Your task to perform on an android device: Clear the shopping cart on target.com. Search for "jbl flip 4" on target.com, select the first entry, add it to the cart, then select checkout. Image 0: 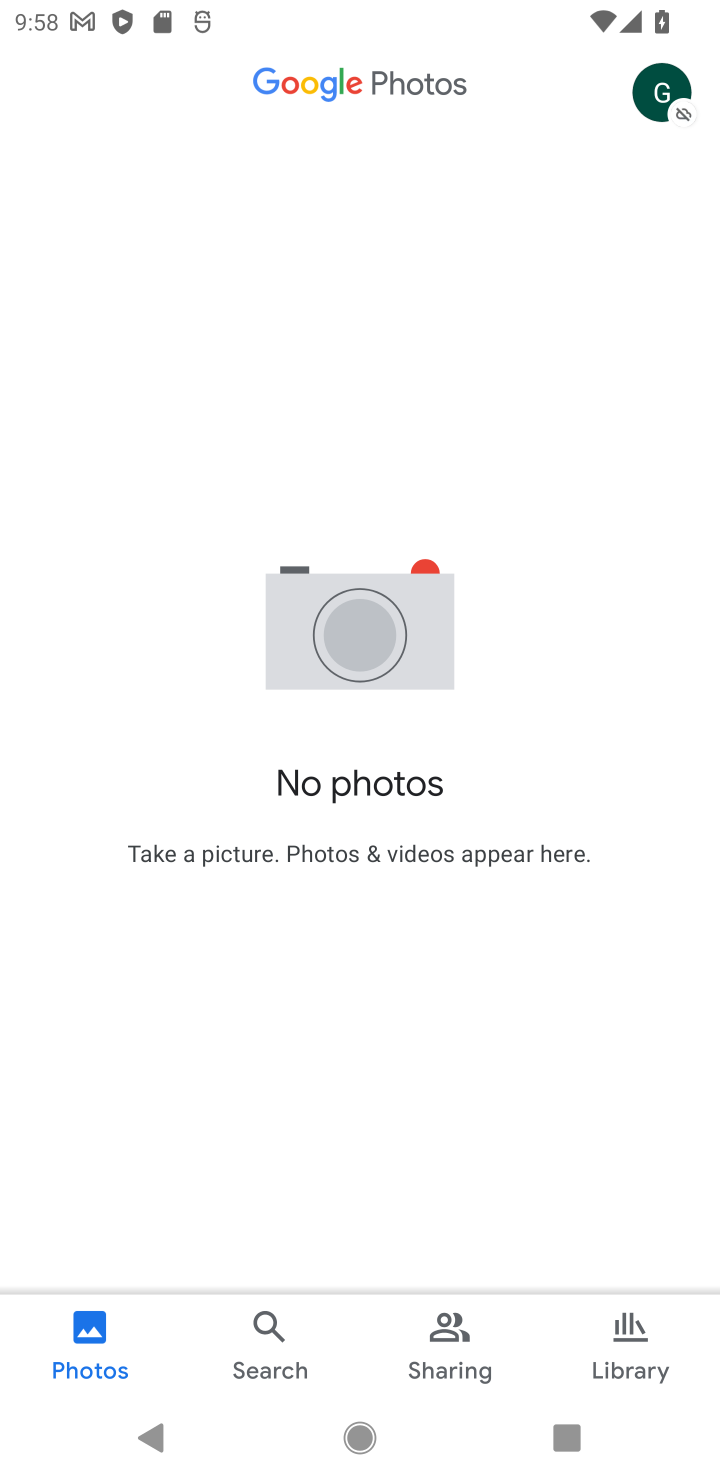
Step 0: press home button
Your task to perform on an android device: Clear the shopping cart on target.com. Search for "jbl flip 4" on target.com, select the first entry, add it to the cart, then select checkout. Image 1: 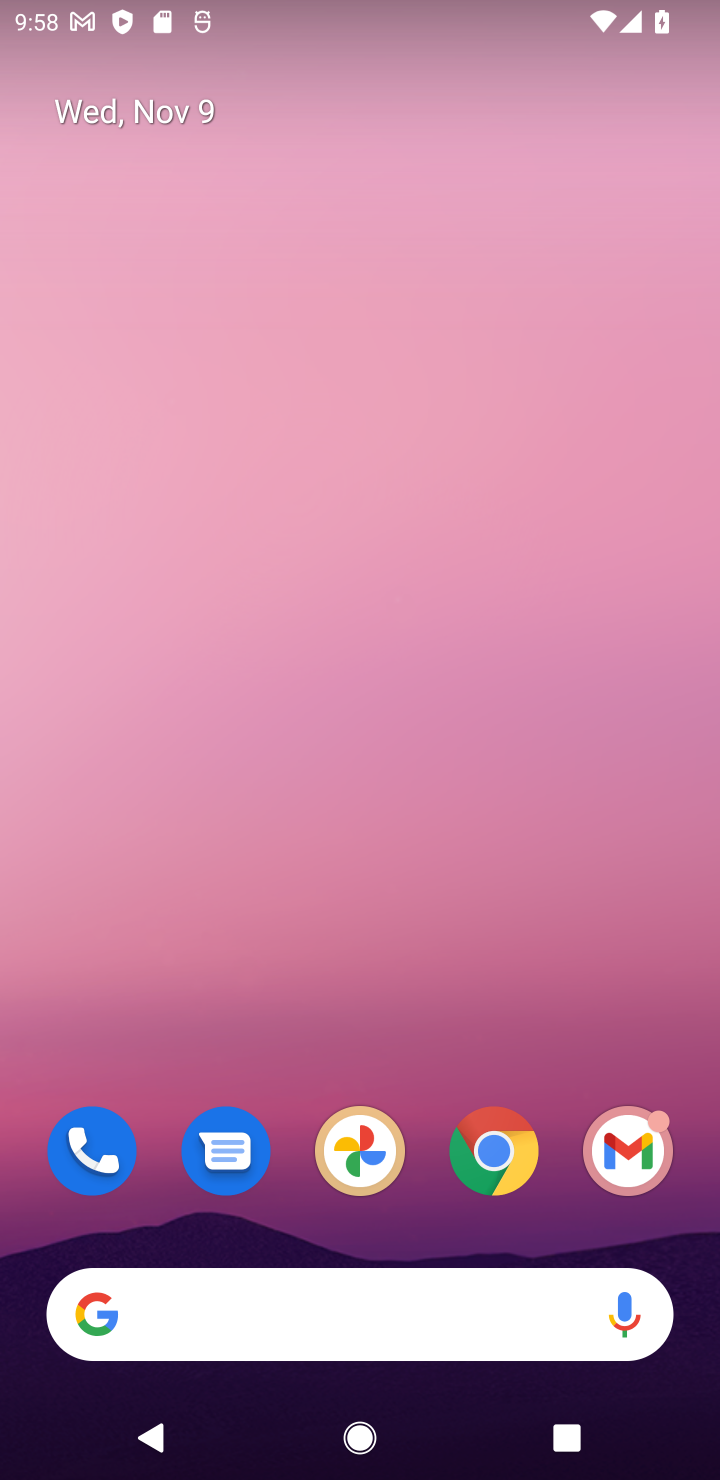
Step 1: click (484, 1161)
Your task to perform on an android device: Clear the shopping cart on target.com. Search for "jbl flip 4" on target.com, select the first entry, add it to the cart, then select checkout. Image 2: 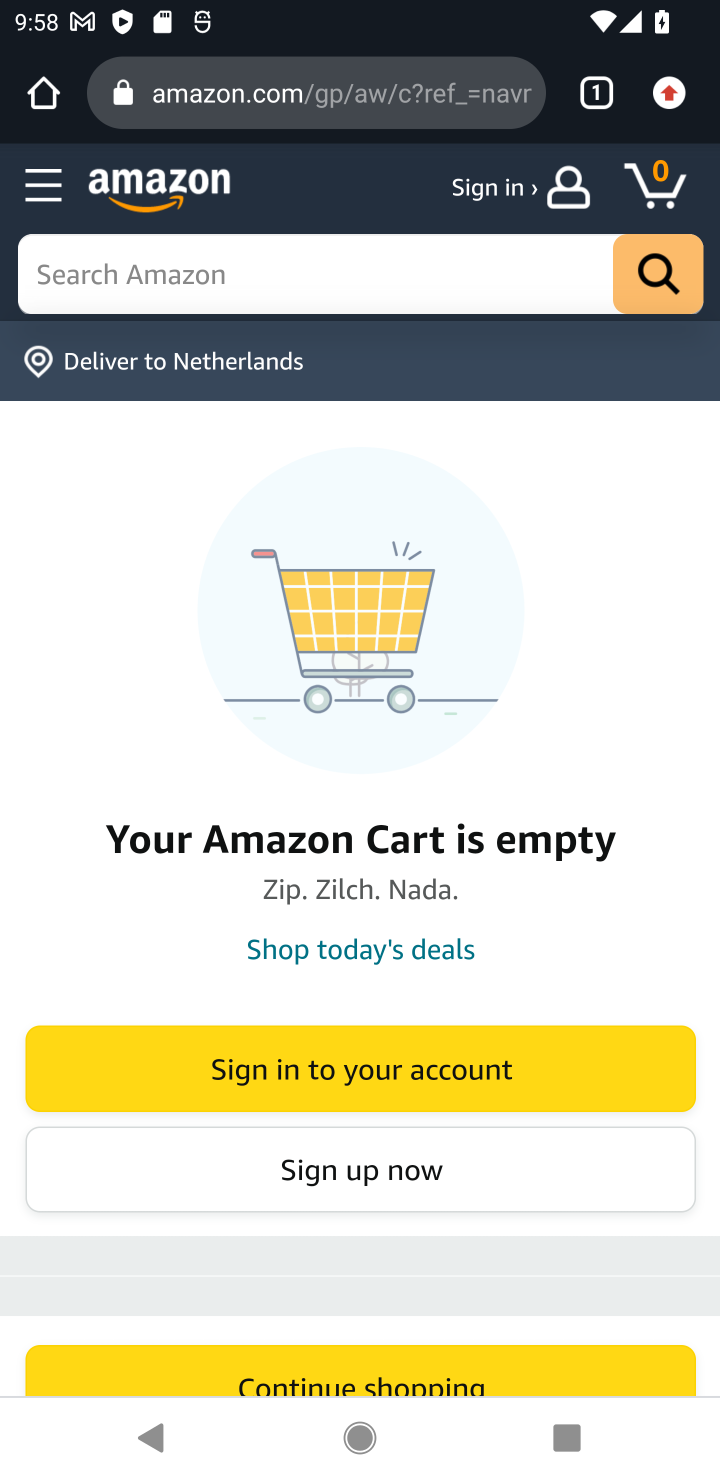
Step 2: click (370, 87)
Your task to perform on an android device: Clear the shopping cart on target.com. Search for "jbl flip 4" on target.com, select the first entry, add it to the cart, then select checkout. Image 3: 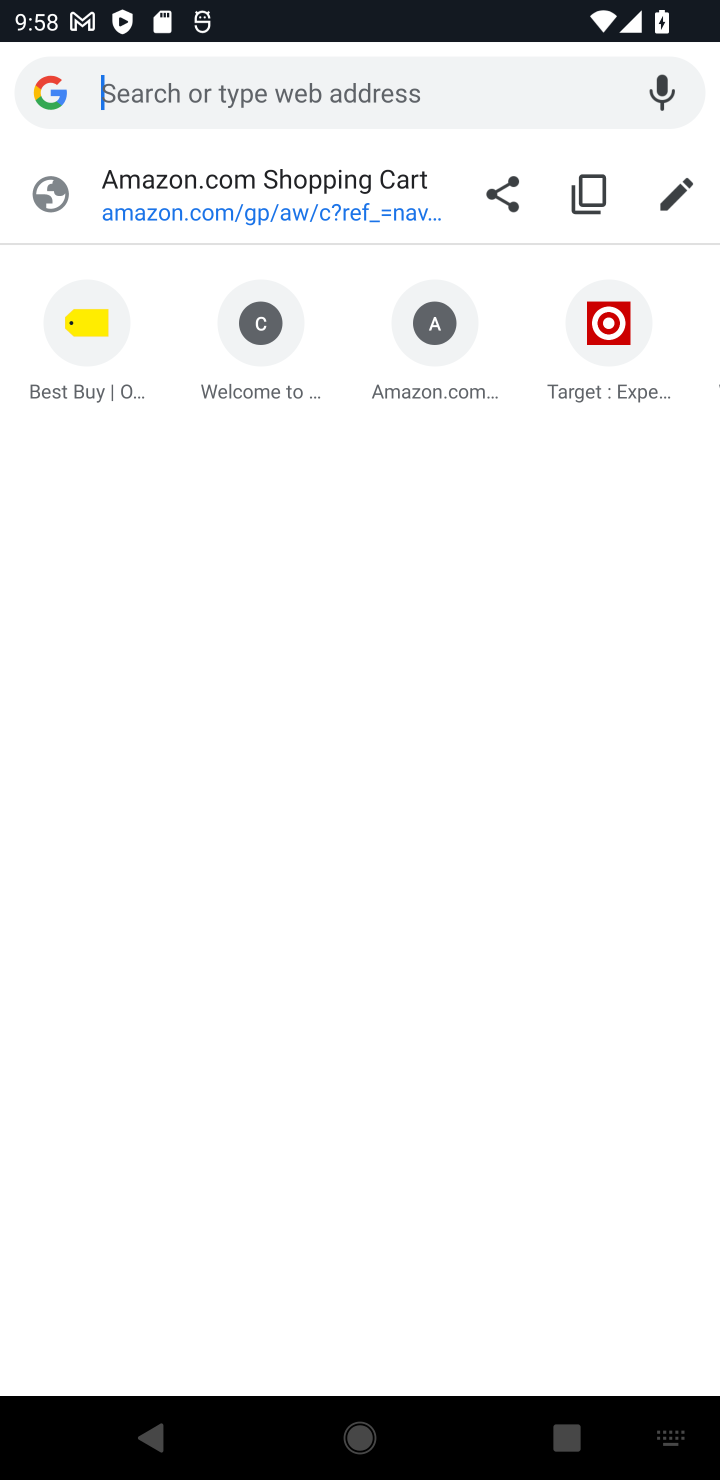
Step 3: click (620, 351)
Your task to perform on an android device: Clear the shopping cart on target.com. Search for "jbl flip 4" on target.com, select the first entry, add it to the cart, then select checkout. Image 4: 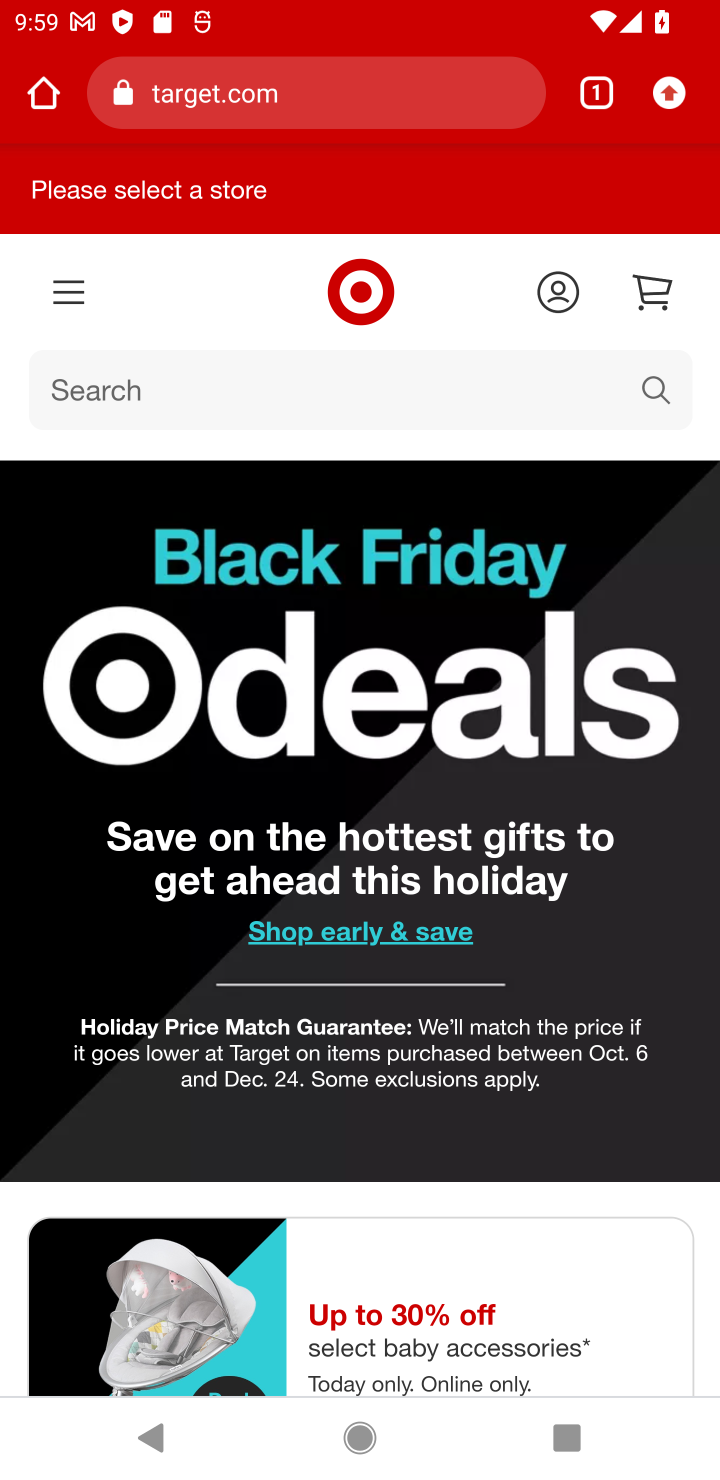
Step 4: click (661, 290)
Your task to perform on an android device: Clear the shopping cart on target.com. Search for "jbl flip 4" on target.com, select the first entry, add it to the cart, then select checkout. Image 5: 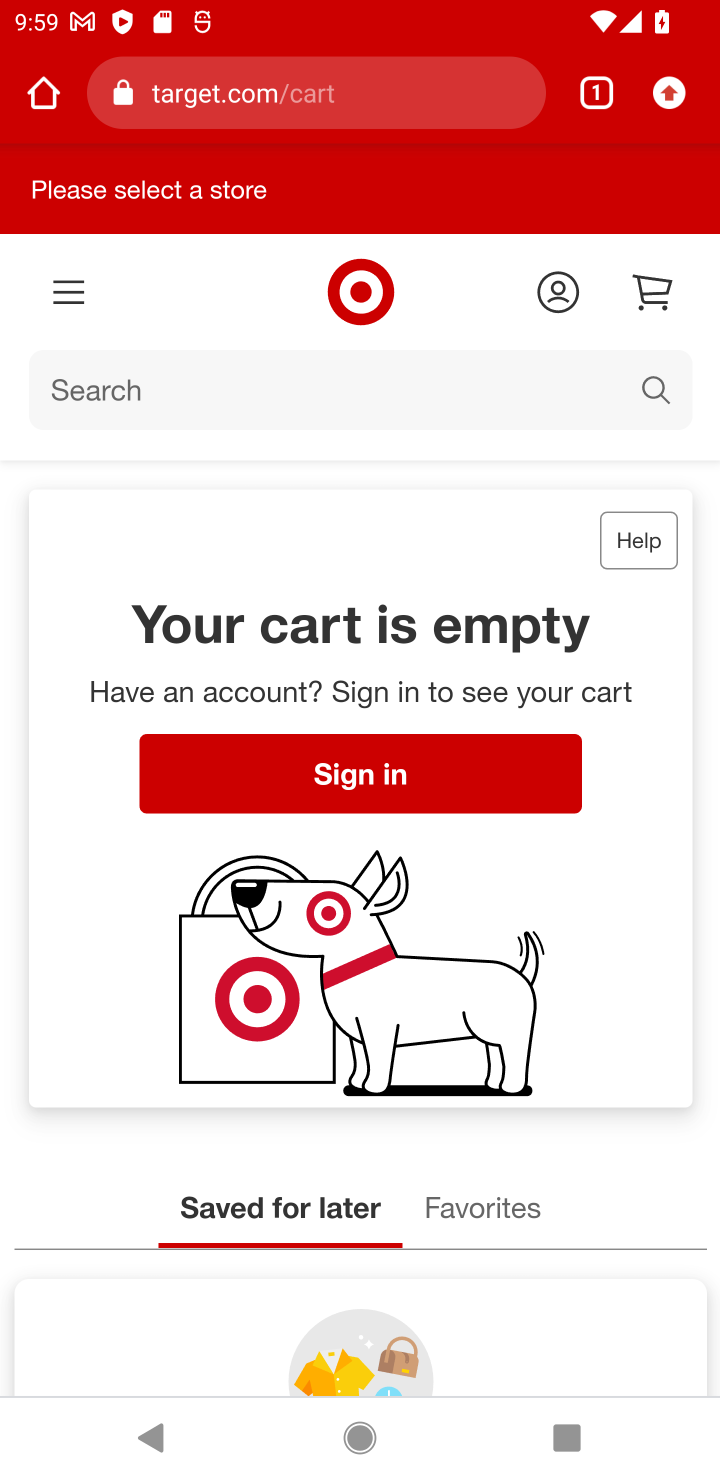
Step 5: click (656, 379)
Your task to perform on an android device: Clear the shopping cart on target.com. Search for "jbl flip 4" on target.com, select the first entry, add it to the cart, then select checkout. Image 6: 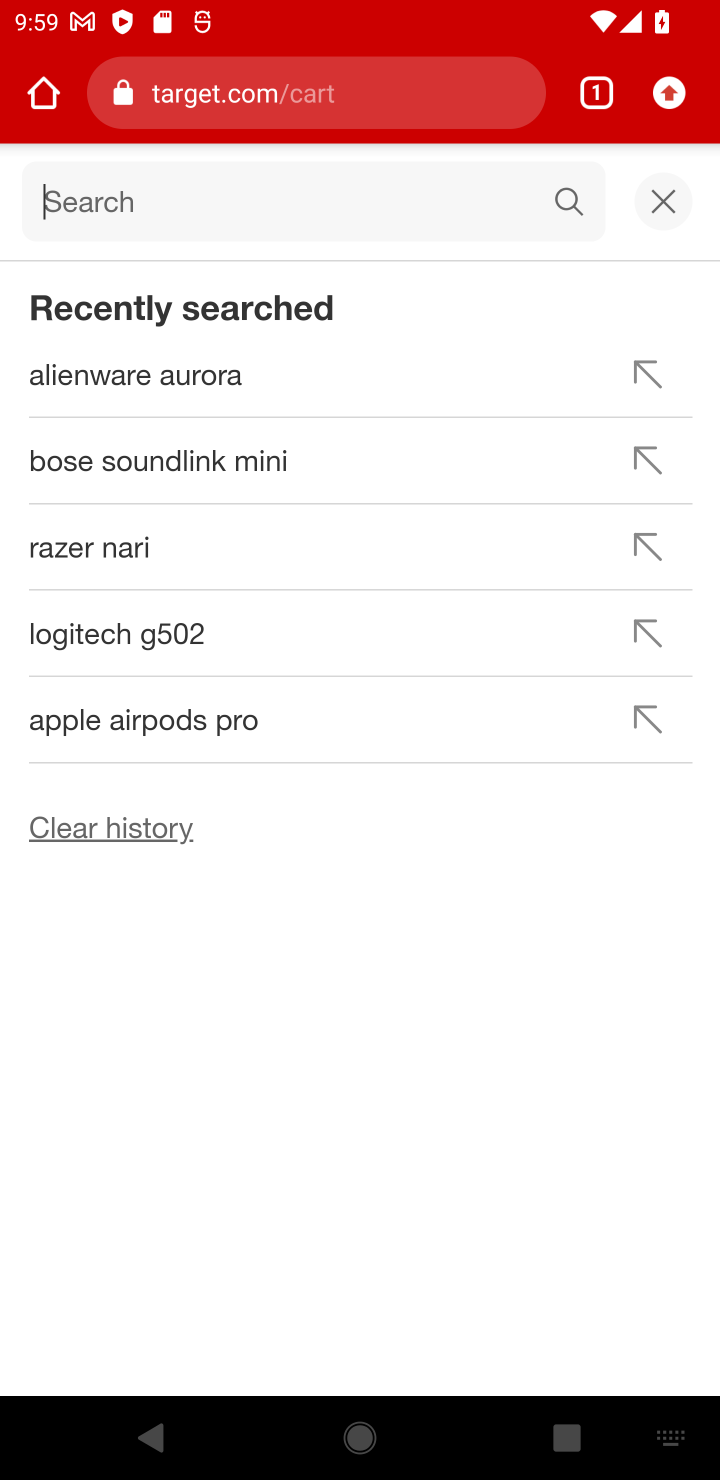
Step 6: type "jbl flip 4"
Your task to perform on an android device: Clear the shopping cart on target.com. Search for "jbl flip 4" on target.com, select the first entry, add it to the cart, then select checkout. Image 7: 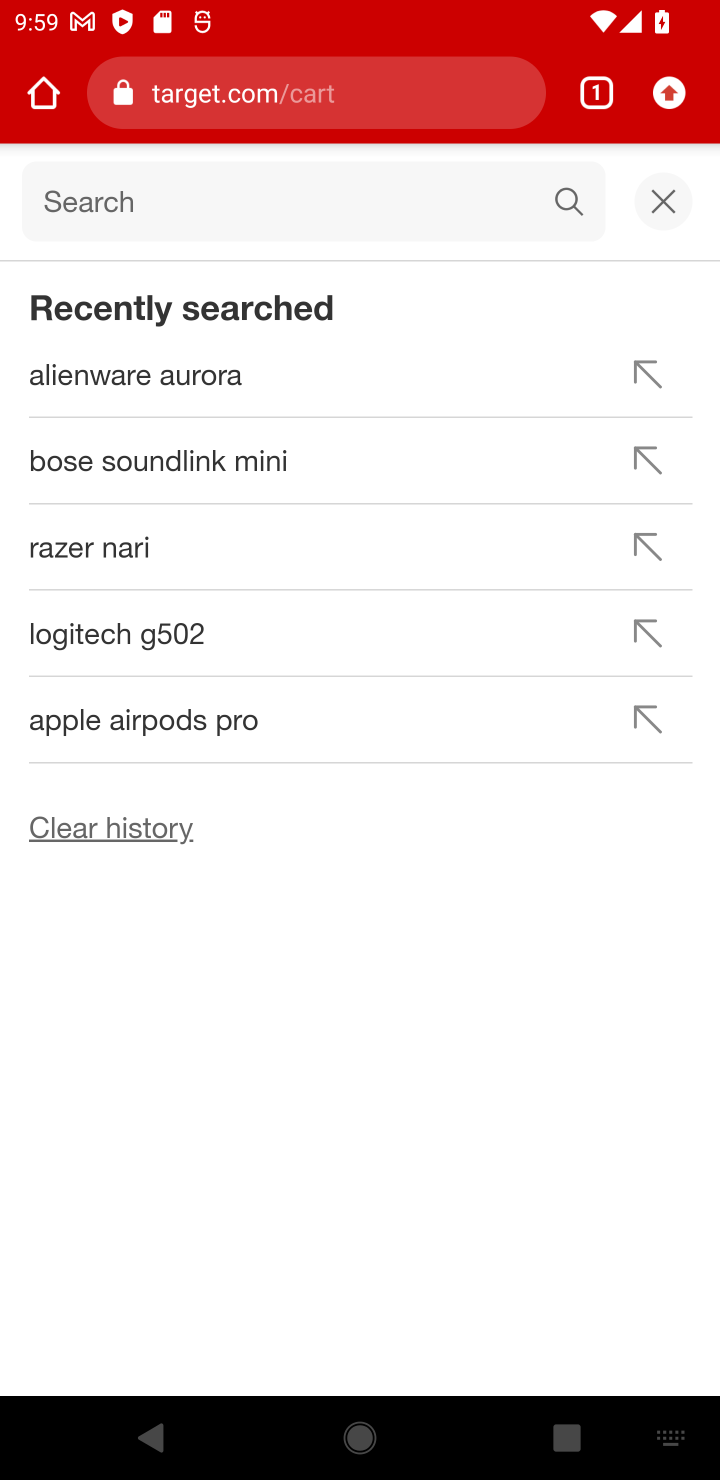
Step 7: press enter
Your task to perform on an android device: Clear the shopping cart on target.com. Search for "jbl flip 4" on target.com, select the first entry, add it to the cart, then select checkout. Image 8: 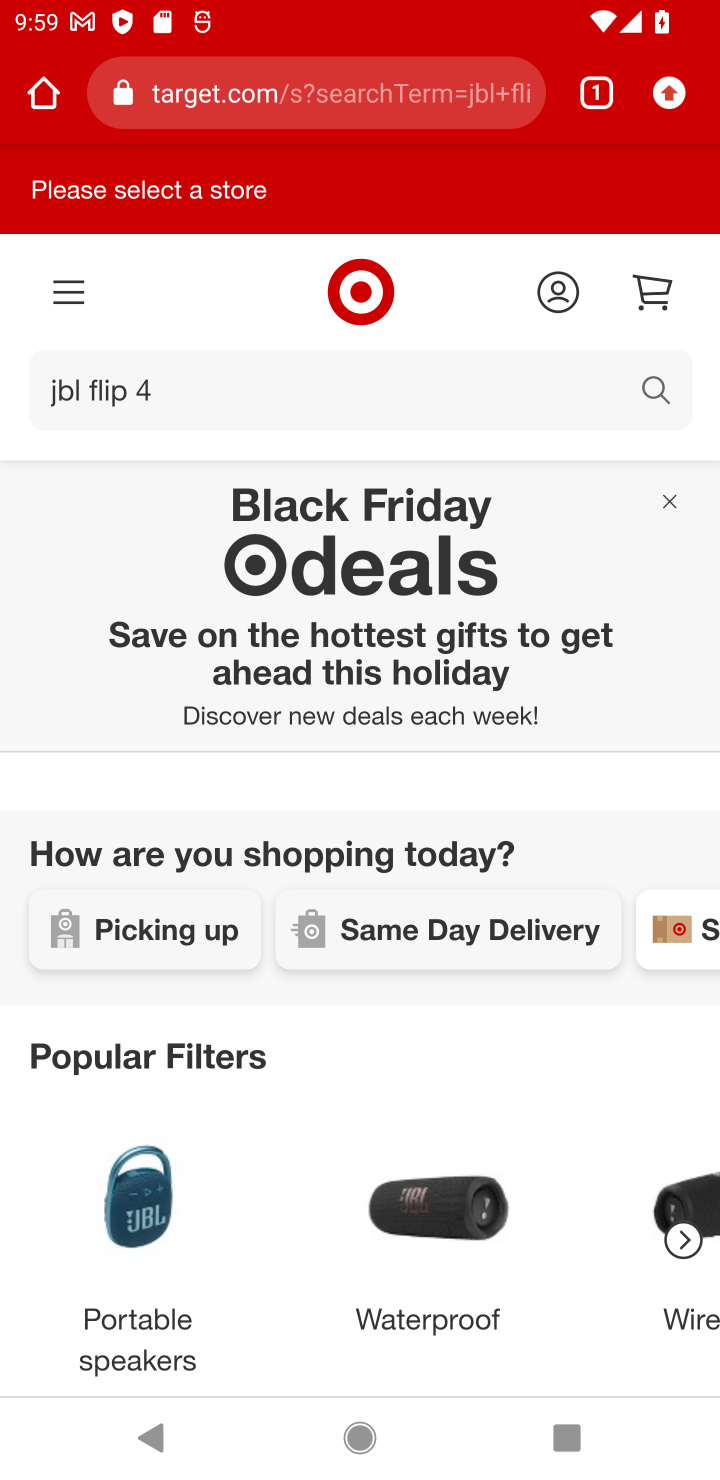
Step 8: drag from (480, 1015) to (515, 411)
Your task to perform on an android device: Clear the shopping cart on target.com. Search for "jbl flip 4" on target.com, select the first entry, add it to the cart, then select checkout. Image 9: 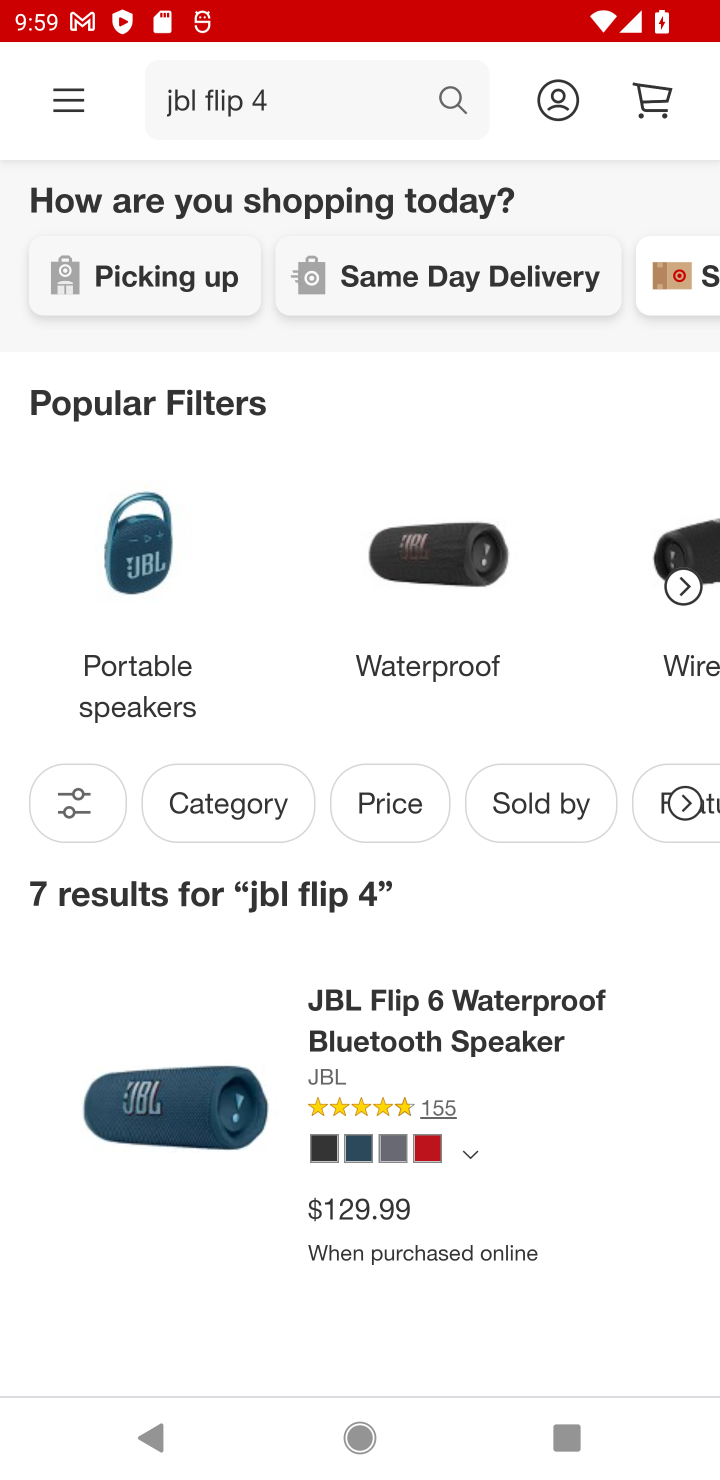
Step 9: drag from (592, 1121) to (546, 483)
Your task to perform on an android device: Clear the shopping cart on target.com. Search for "jbl flip 4" on target.com, select the first entry, add it to the cart, then select checkout. Image 10: 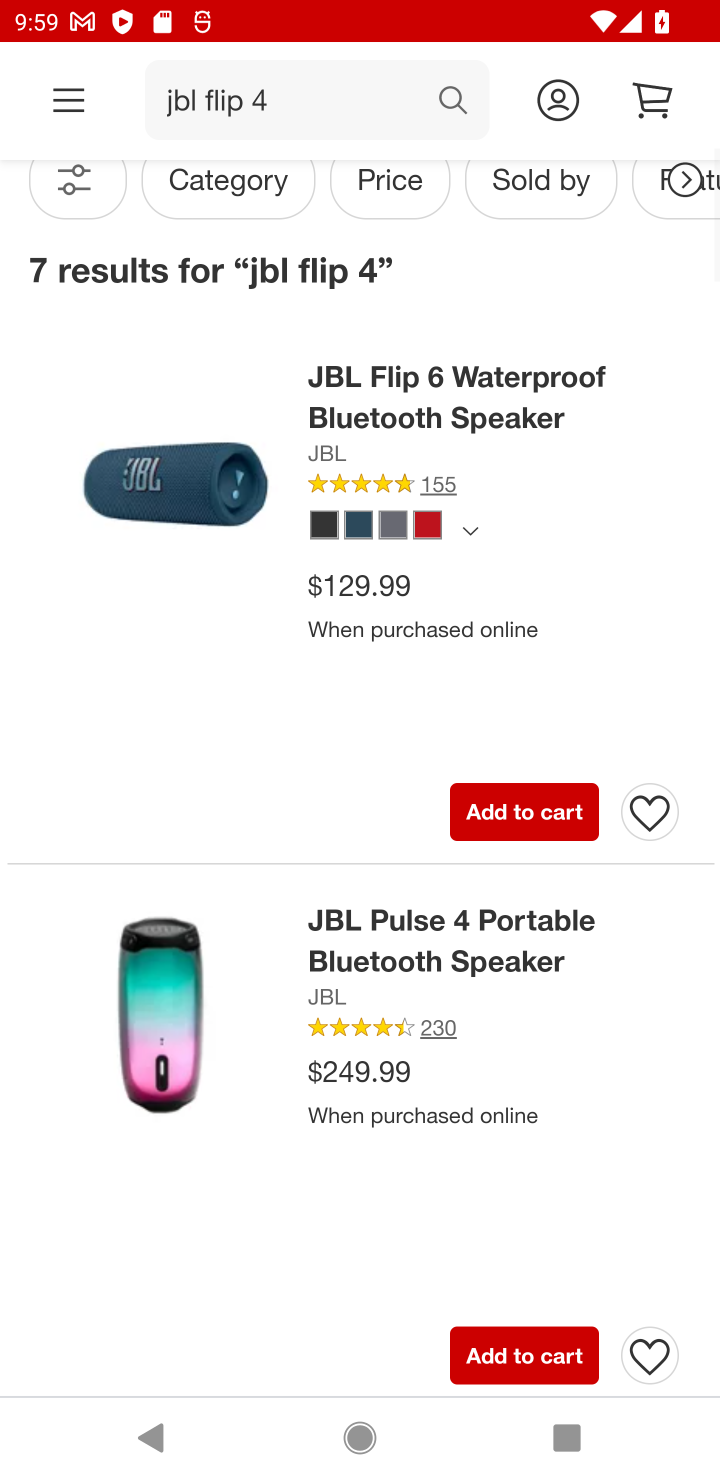
Step 10: drag from (611, 1154) to (584, 526)
Your task to perform on an android device: Clear the shopping cart on target.com. Search for "jbl flip 4" on target.com, select the first entry, add it to the cart, then select checkout. Image 11: 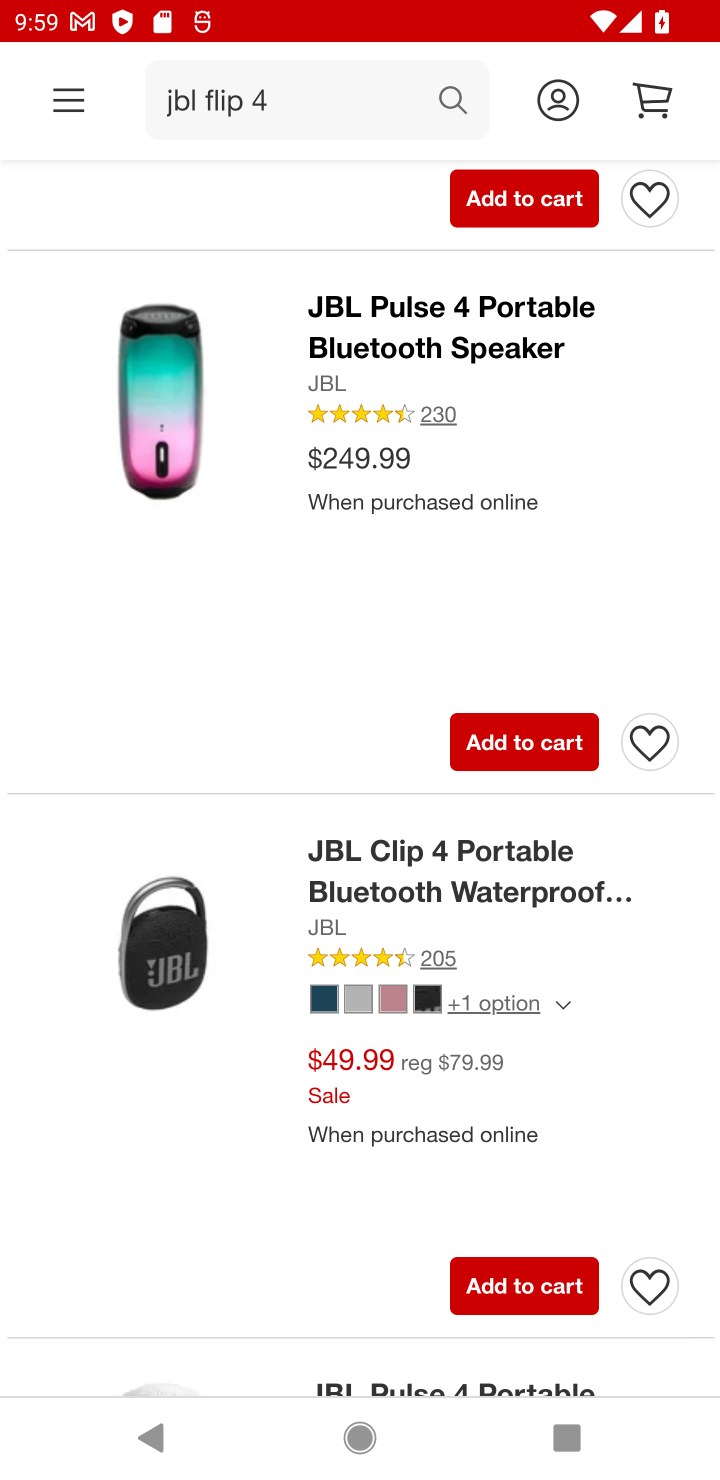
Step 11: drag from (597, 1027) to (591, 503)
Your task to perform on an android device: Clear the shopping cart on target.com. Search for "jbl flip 4" on target.com, select the first entry, add it to the cart, then select checkout. Image 12: 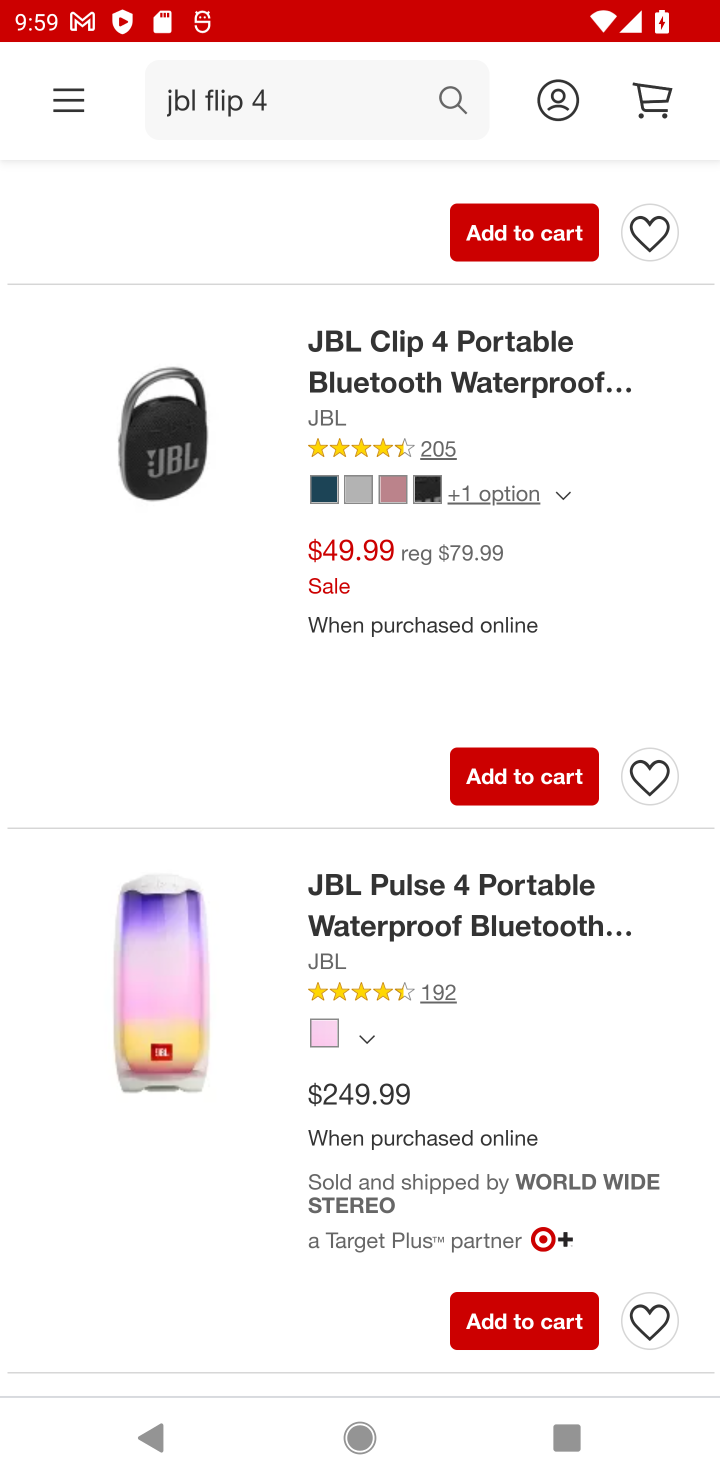
Step 12: drag from (683, 1023) to (643, 358)
Your task to perform on an android device: Clear the shopping cart on target.com. Search for "jbl flip 4" on target.com, select the first entry, add it to the cart, then select checkout. Image 13: 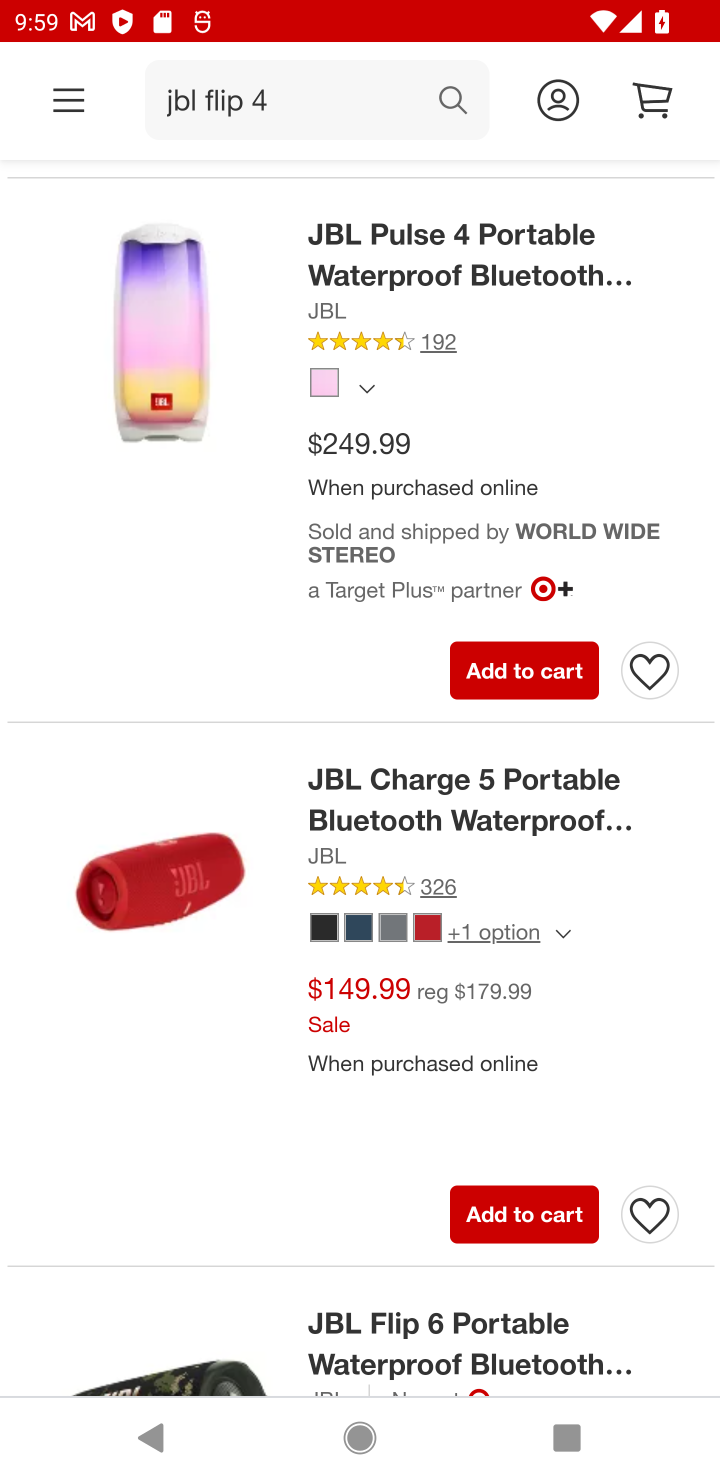
Step 13: drag from (601, 358) to (616, 1120)
Your task to perform on an android device: Clear the shopping cart on target.com. Search for "jbl flip 4" on target.com, select the first entry, add it to the cart, then select checkout. Image 14: 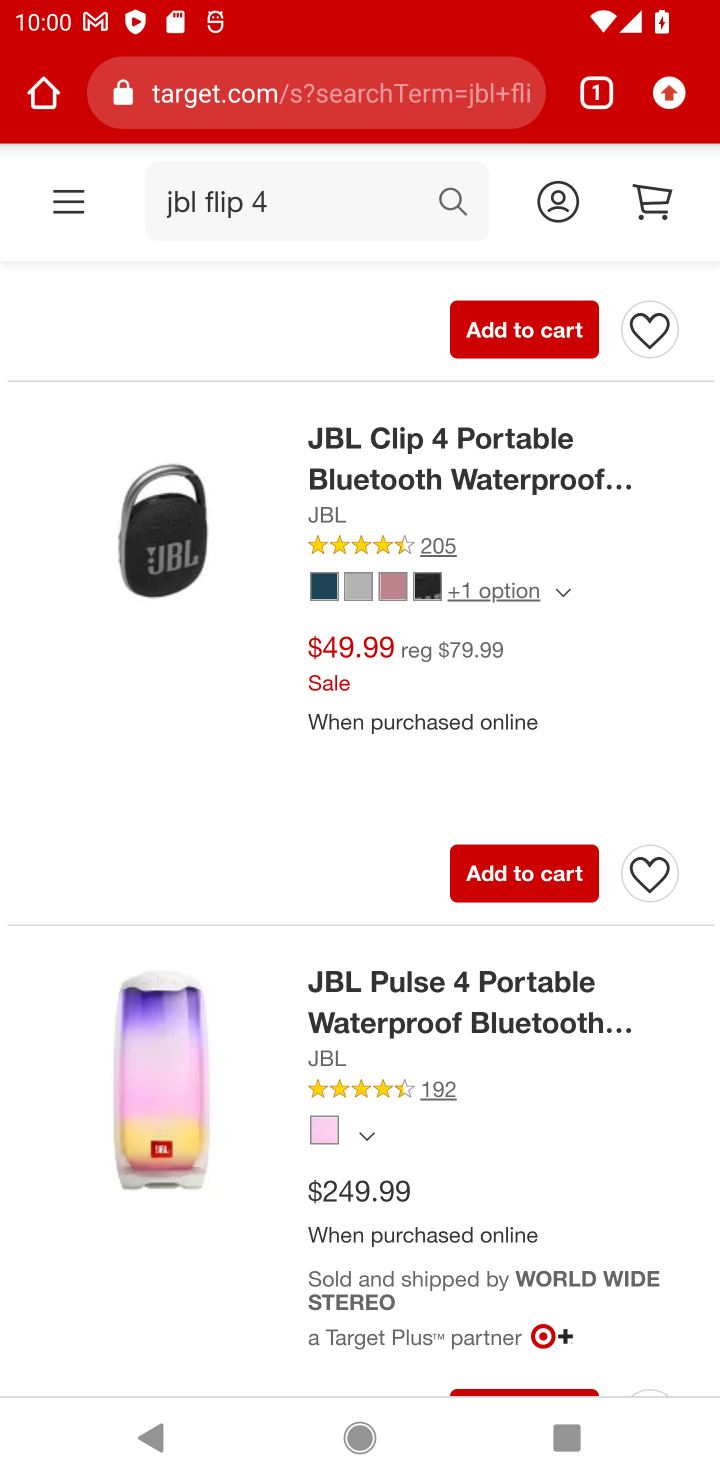
Step 14: click (194, 518)
Your task to perform on an android device: Clear the shopping cart on target.com. Search for "jbl flip 4" on target.com, select the first entry, add it to the cart, then select checkout. Image 15: 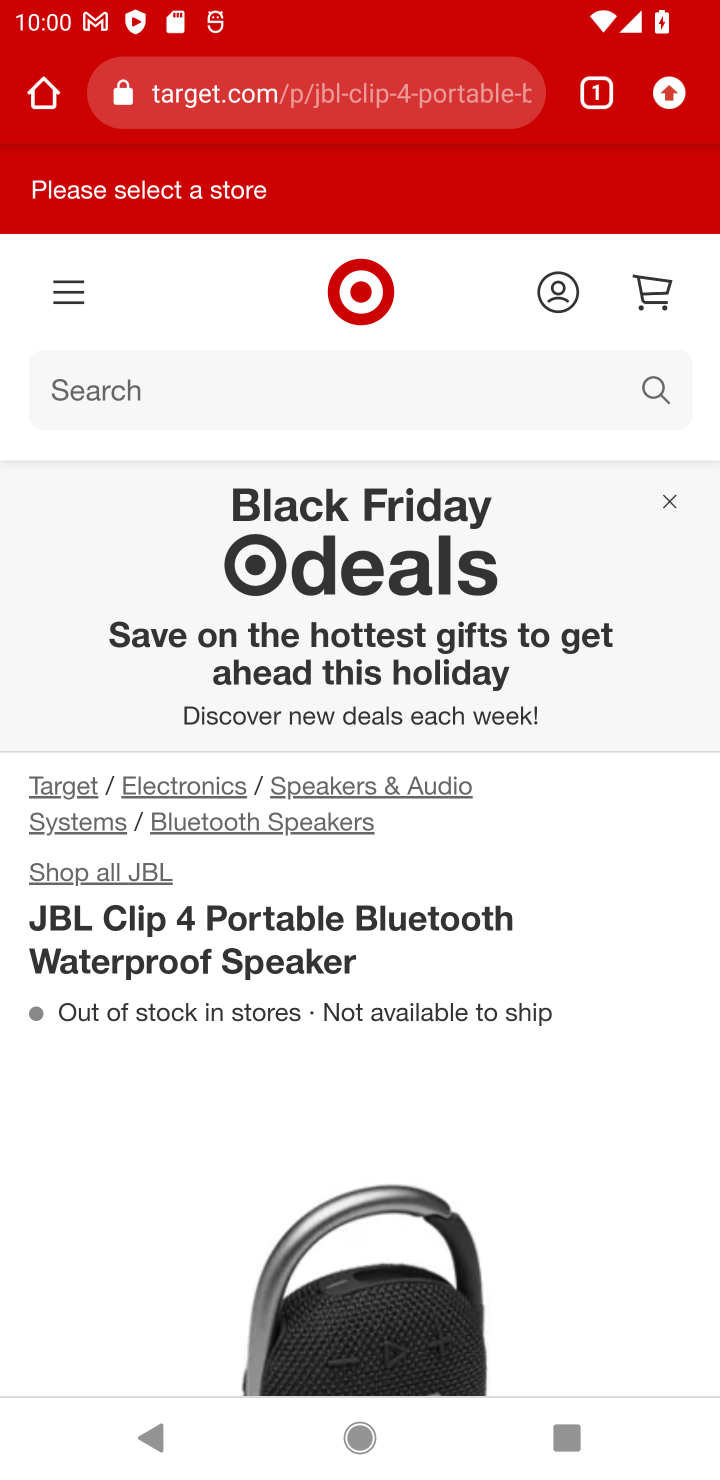
Step 15: drag from (607, 1077) to (535, 208)
Your task to perform on an android device: Clear the shopping cart on target.com. Search for "jbl flip 4" on target.com, select the first entry, add it to the cart, then select checkout. Image 16: 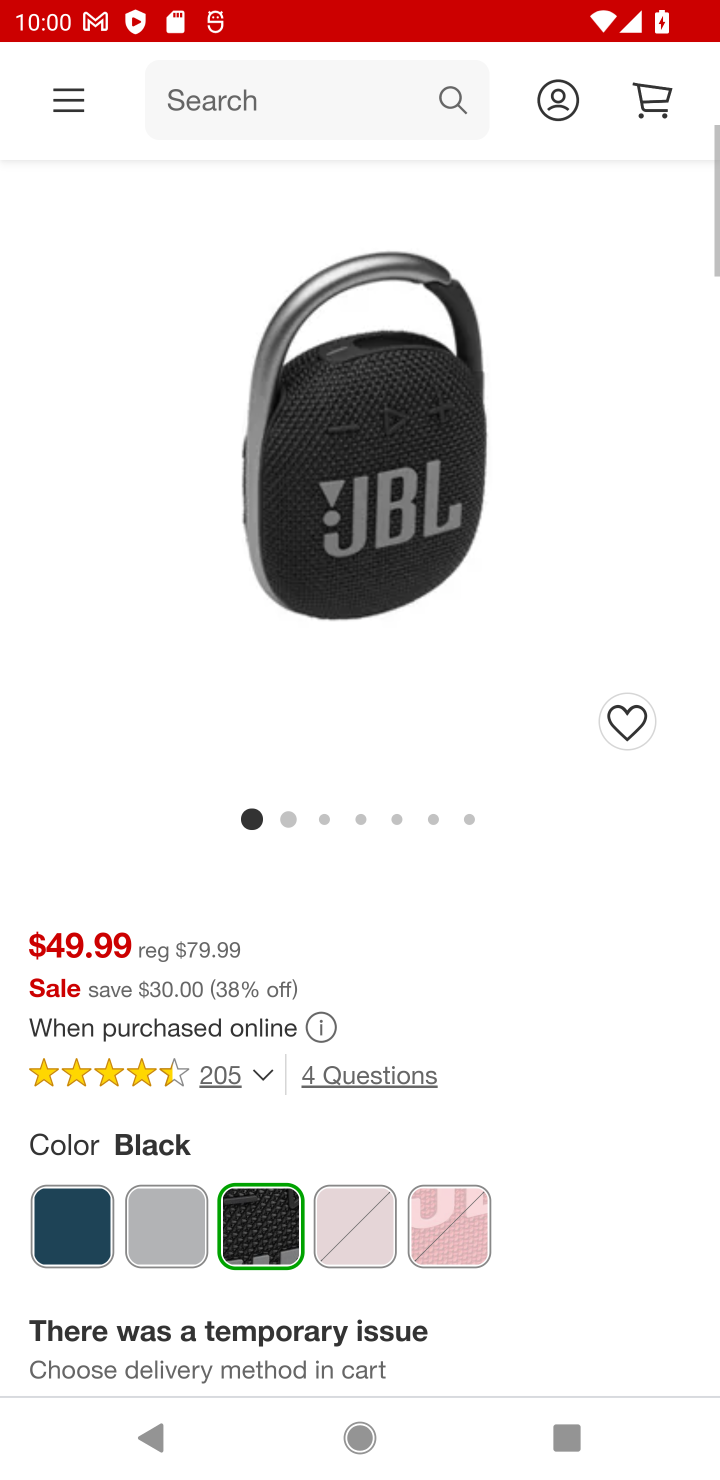
Step 16: drag from (596, 915) to (543, 467)
Your task to perform on an android device: Clear the shopping cart on target.com. Search for "jbl flip 4" on target.com, select the first entry, add it to the cart, then select checkout. Image 17: 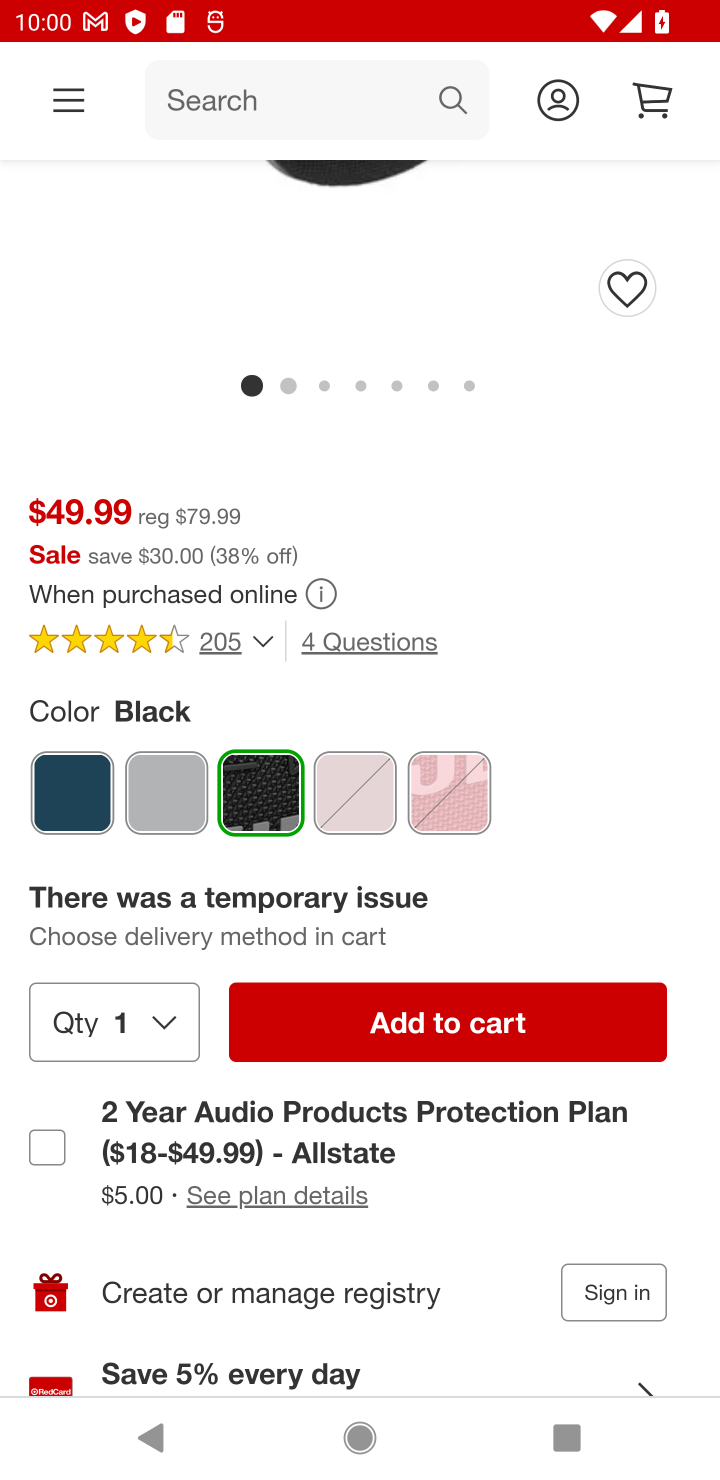
Step 17: click (472, 1027)
Your task to perform on an android device: Clear the shopping cart on target.com. Search for "jbl flip 4" on target.com, select the first entry, add it to the cart, then select checkout. Image 18: 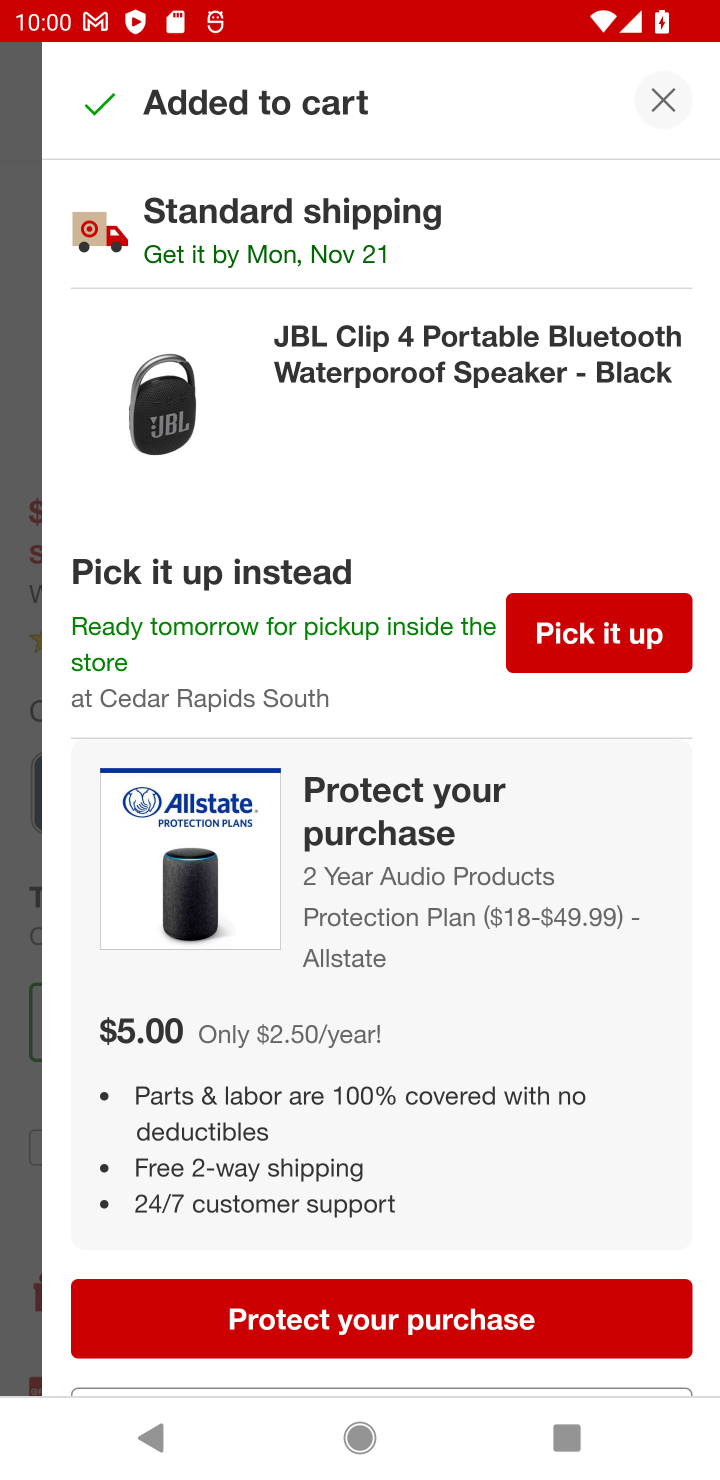
Step 18: click (669, 94)
Your task to perform on an android device: Clear the shopping cart on target.com. Search for "jbl flip 4" on target.com, select the first entry, add it to the cart, then select checkout. Image 19: 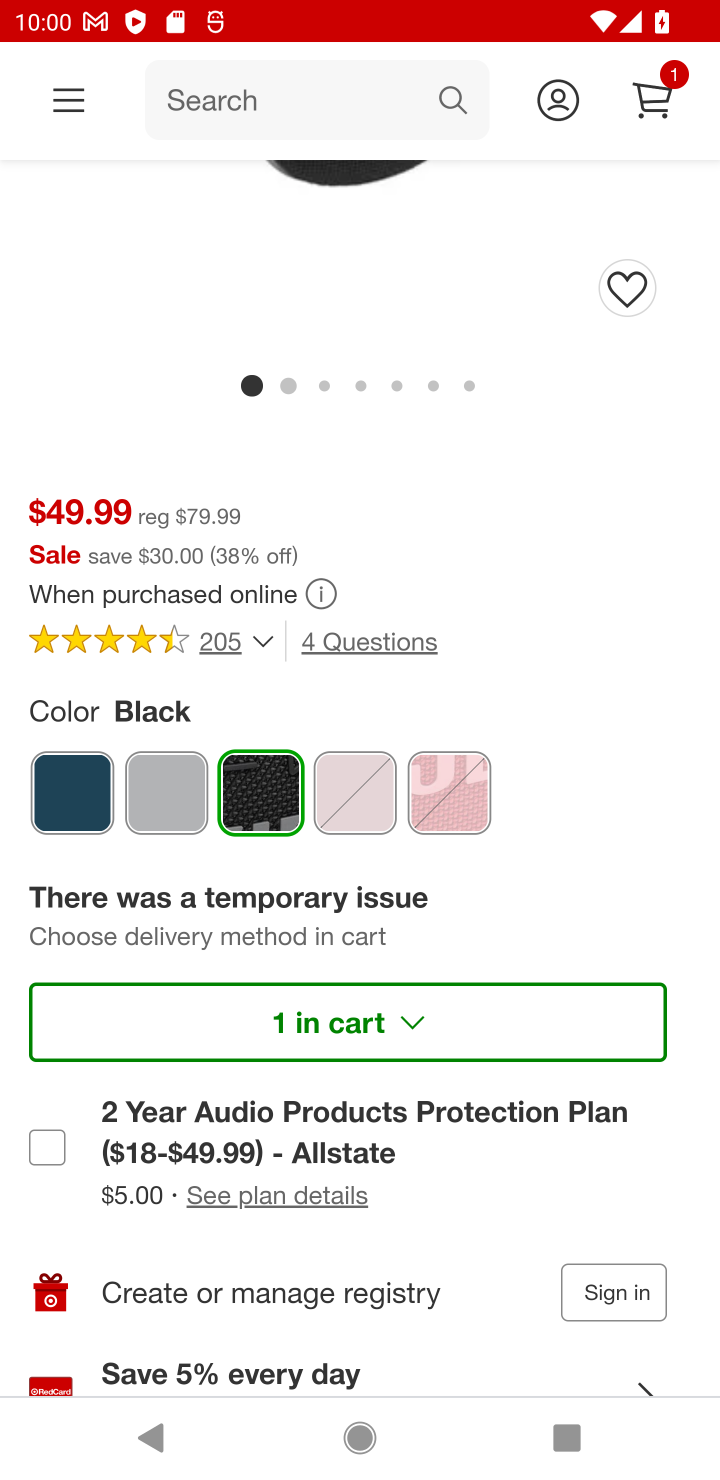
Step 19: click (641, 97)
Your task to perform on an android device: Clear the shopping cart on target.com. Search for "jbl flip 4" on target.com, select the first entry, add it to the cart, then select checkout. Image 20: 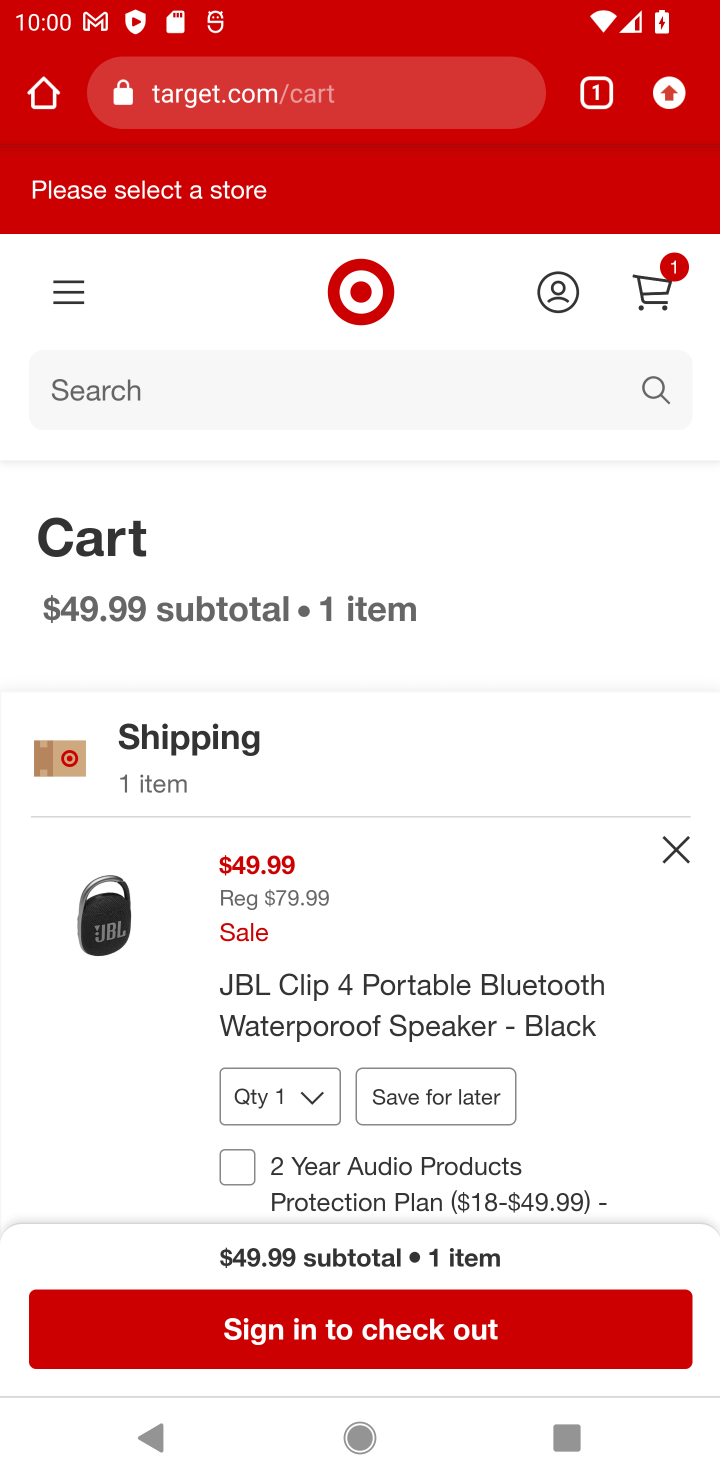
Step 20: click (411, 1318)
Your task to perform on an android device: Clear the shopping cart on target.com. Search for "jbl flip 4" on target.com, select the first entry, add it to the cart, then select checkout. Image 21: 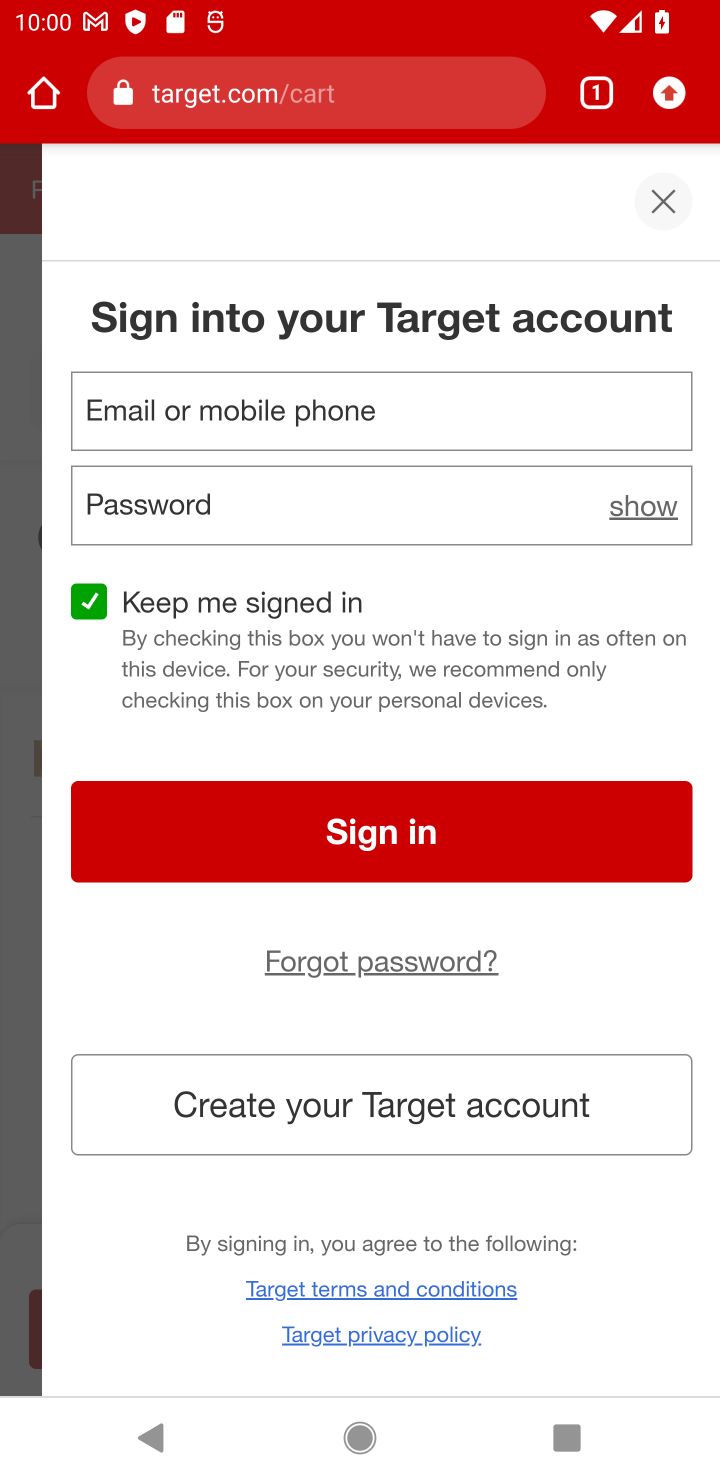
Step 21: task complete